Your task to perform on an android device: open app "NewsBreak: Local News & Alerts" (install if not already installed) Image 0: 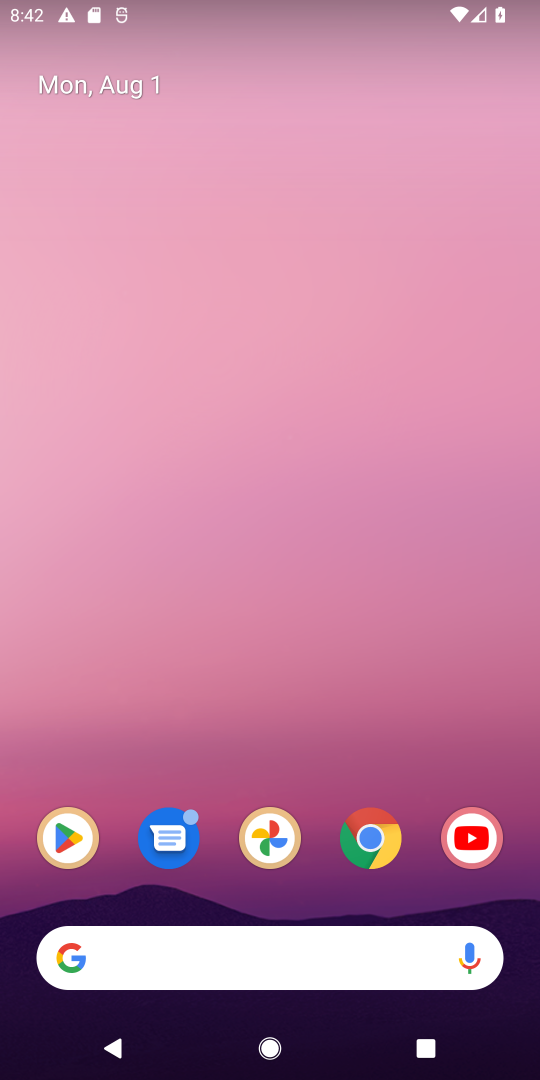
Step 0: drag from (228, 913) to (406, 13)
Your task to perform on an android device: open app "NewsBreak: Local News & Alerts" (install if not already installed) Image 1: 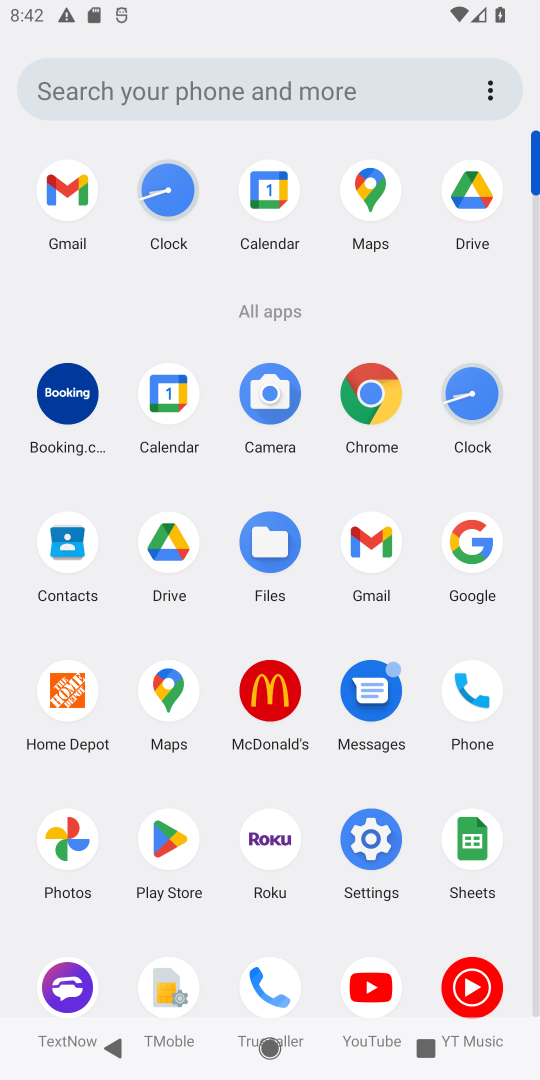
Step 1: click (161, 850)
Your task to perform on an android device: open app "NewsBreak: Local News & Alerts" (install if not already installed) Image 2: 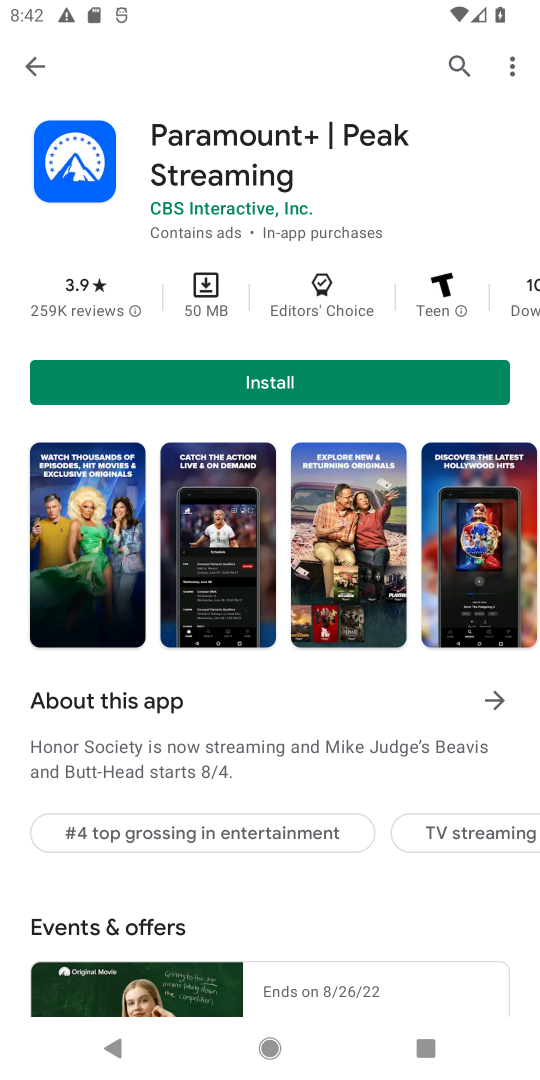
Step 2: click (461, 59)
Your task to perform on an android device: open app "NewsBreak: Local News & Alerts" (install if not already installed) Image 3: 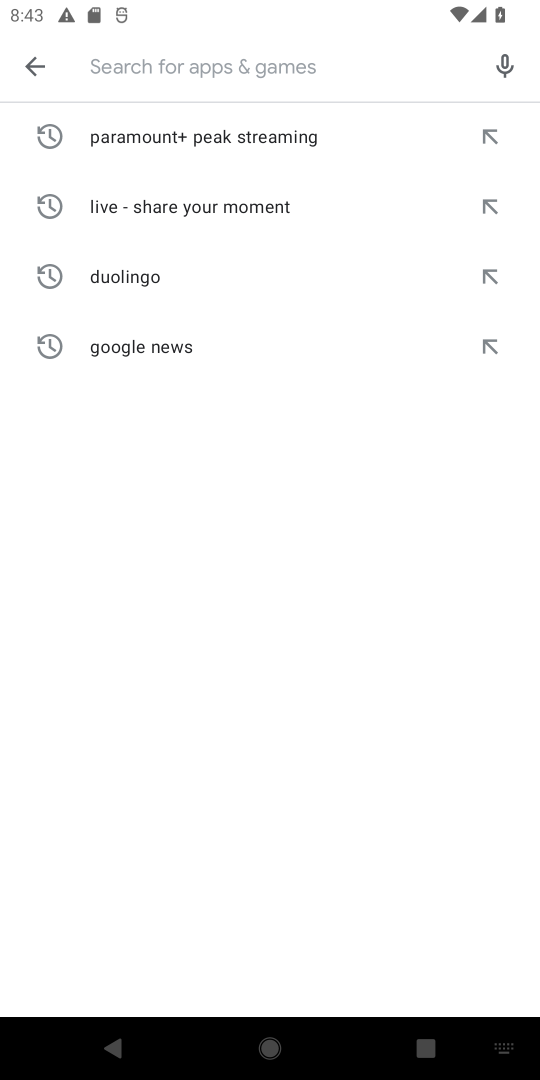
Step 3: type "newsbreak: local news & alerts"
Your task to perform on an android device: open app "NewsBreak: Local News & Alerts" (install if not already installed) Image 4: 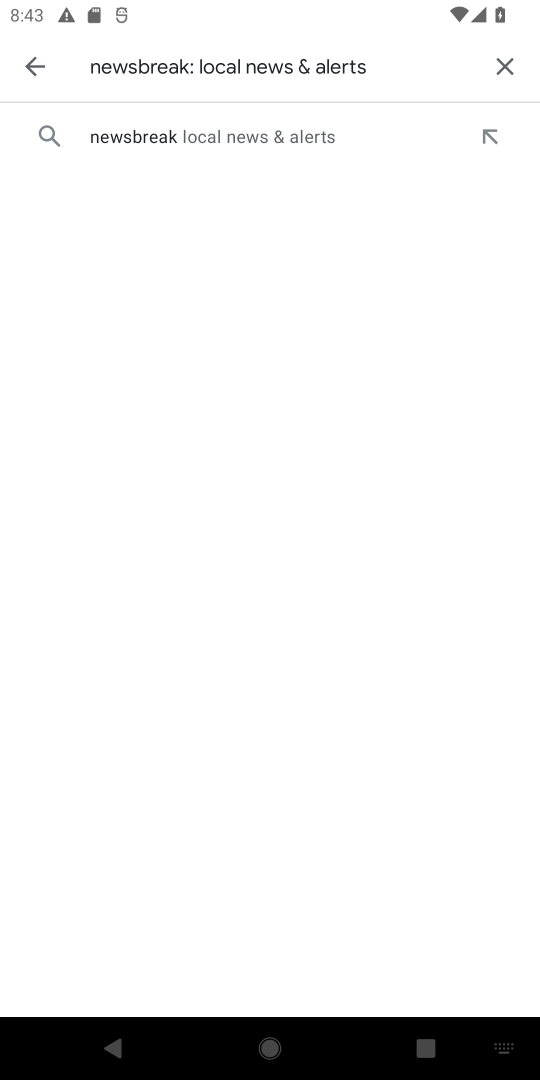
Step 4: click (299, 137)
Your task to perform on an android device: open app "NewsBreak: Local News & Alerts" (install if not already installed) Image 5: 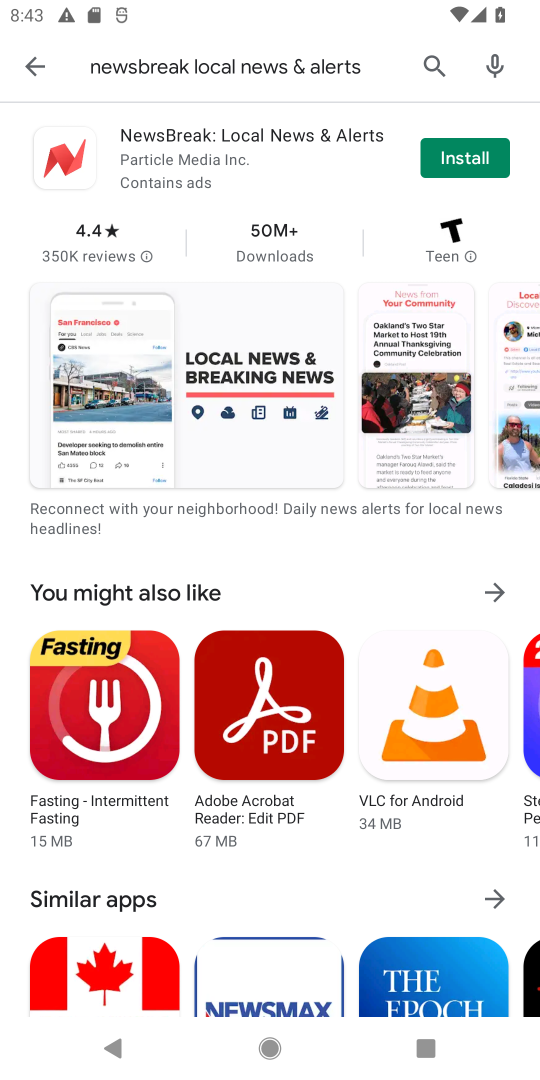
Step 5: click (468, 162)
Your task to perform on an android device: open app "NewsBreak: Local News & Alerts" (install if not already installed) Image 6: 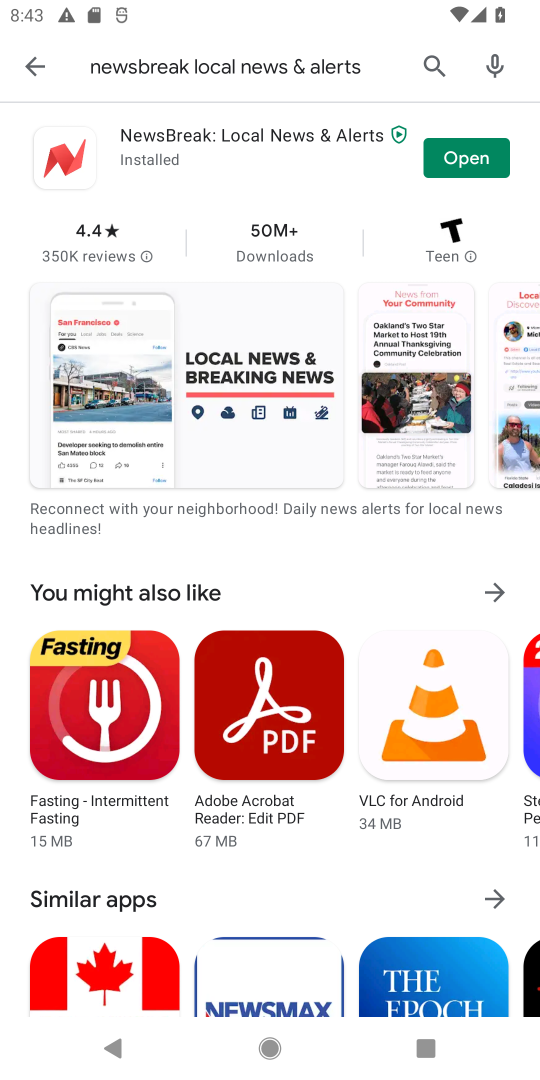
Step 6: click (468, 162)
Your task to perform on an android device: open app "NewsBreak: Local News & Alerts" (install if not already installed) Image 7: 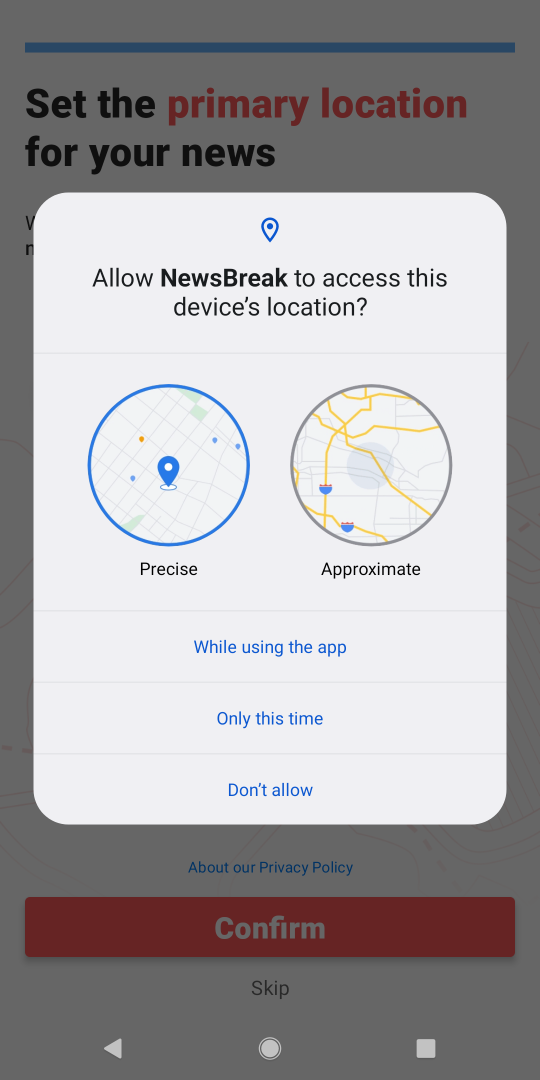
Step 7: task complete